Your task to perform on an android device: Open the calendar and show me this week's events Image 0: 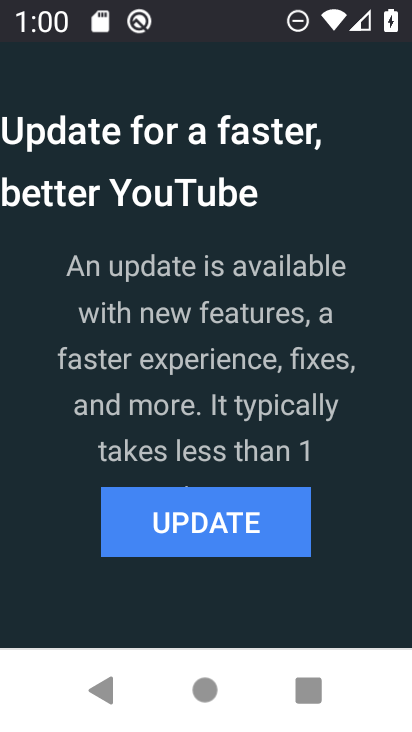
Step 0: press home button
Your task to perform on an android device: Open the calendar and show me this week's events Image 1: 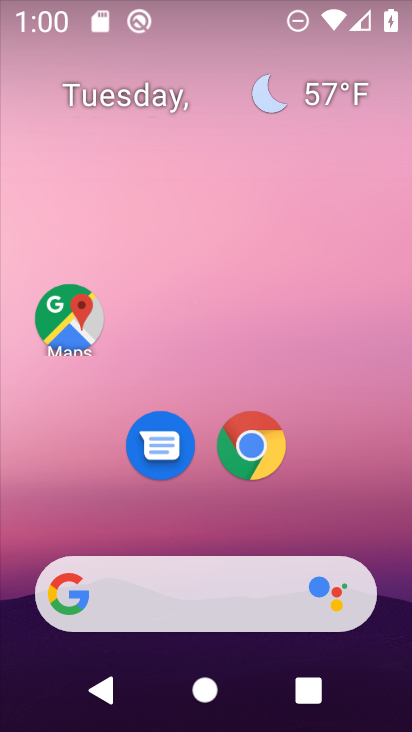
Step 1: drag from (384, 539) to (385, 234)
Your task to perform on an android device: Open the calendar and show me this week's events Image 2: 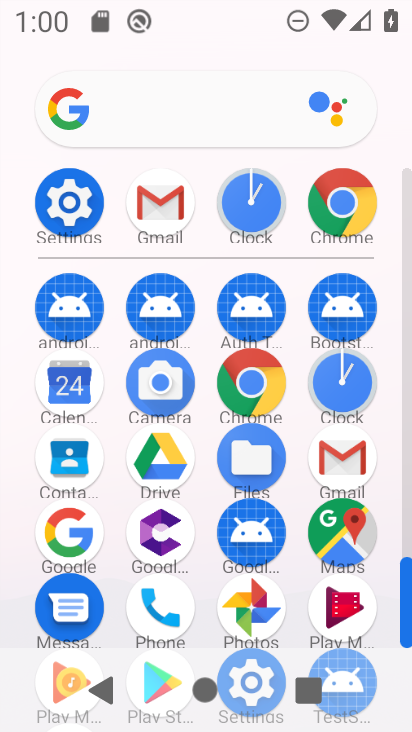
Step 2: click (77, 405)
Your task to perform on an android device: Open the calendar and show me this week's events Image 3: 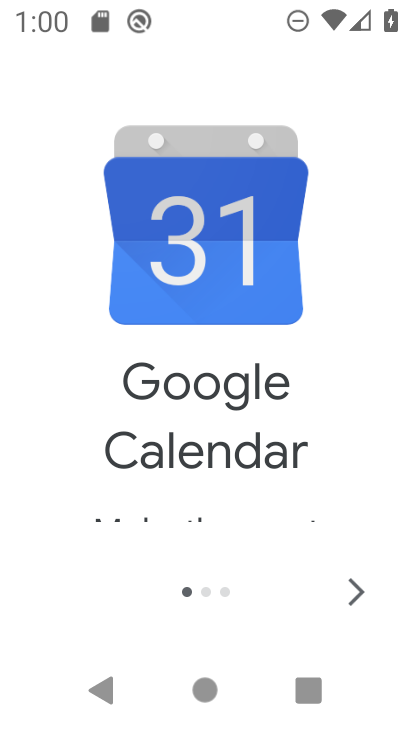
Step 3: click (348, 598)
Your task to perform on an android device: Open the calendar and show me this week's events Image 4: 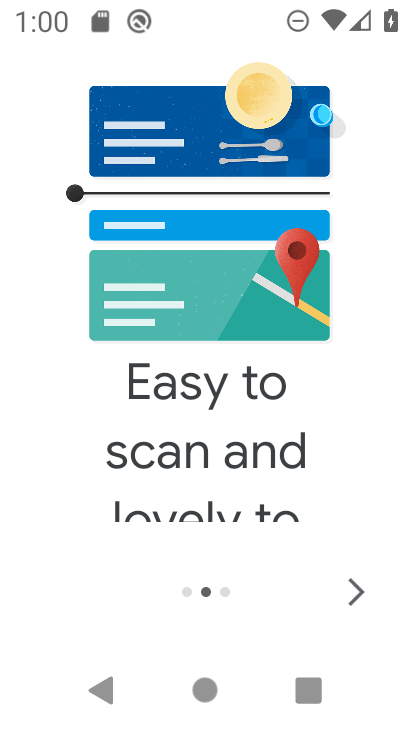
Step 4: click (348, 598)
Your task to perform on an android device: Open the calendar and show me this week's events Image 5: 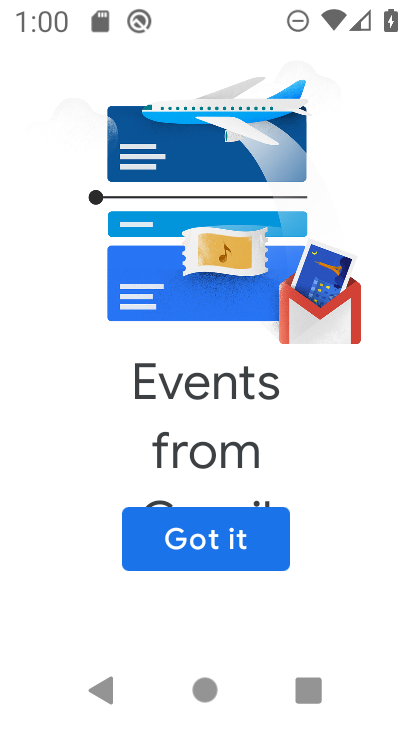
Step 5: click (250, 540)
Your task to perform on an android device: Open the calendar and show me this week's events Image 6: 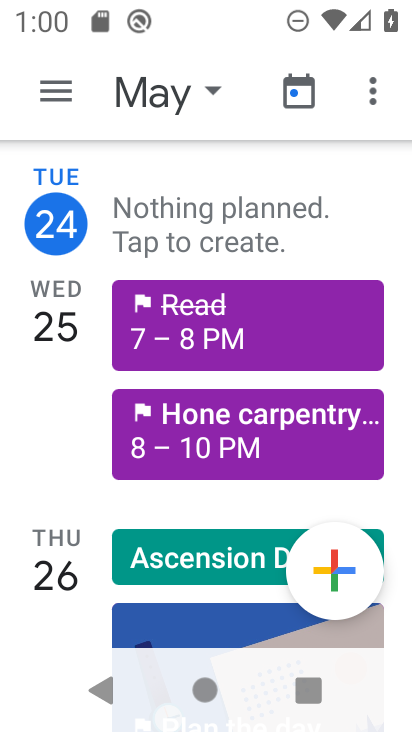
Step 6: drag from (193, 602) to (207, 434)
Your task to perform on an android device: Open the calendar and show me this week's events Image 7: 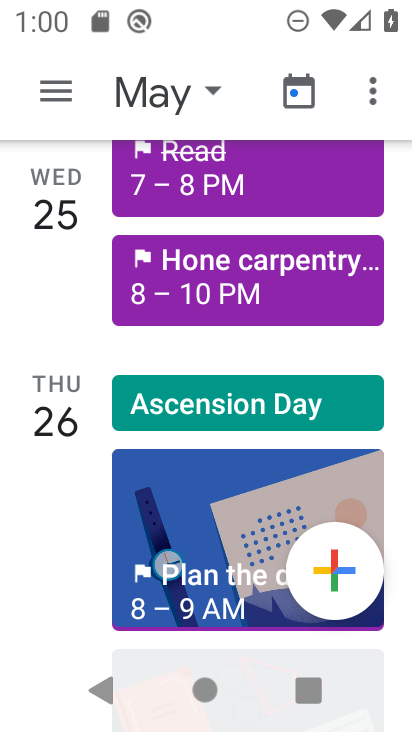
Step 7: click (329, 287)
Your task to perform on an android device: Open the calendar and show me this week's events Image 8: 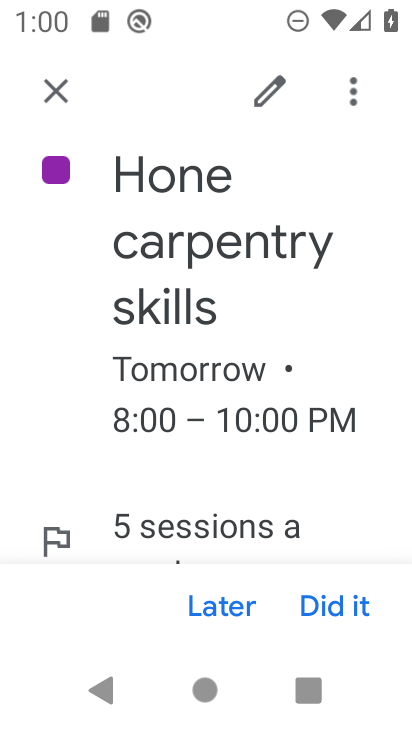
Step 8: task complete